Your task to perform on an android device: What's the weather today? Image 0: 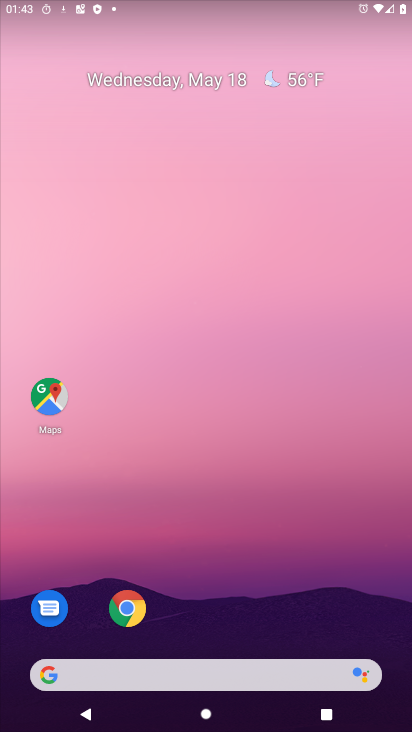
Step 0: press home button
Your task to perform on an android device: What's the weather today? Image 1: 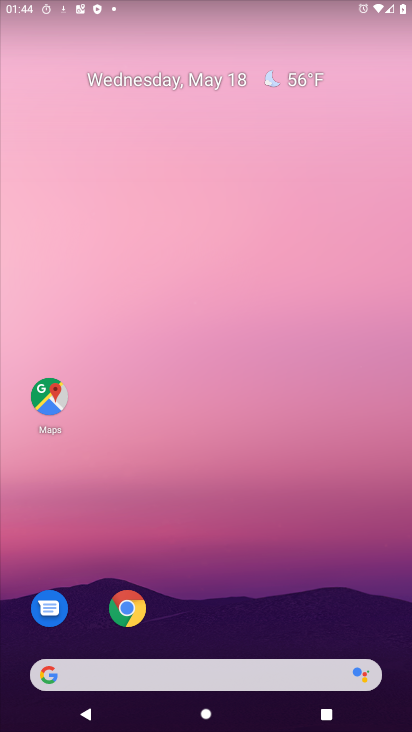
Step 1: drag from (278, 667) to (274, 167)
Your task to perform on an android device: What's the weather today? Image 2: 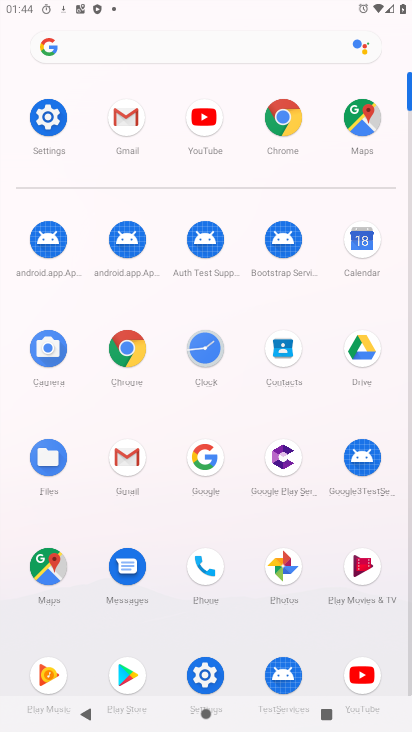
Step 2: click (149, 42)
Your task to perform on an android device: What's the weather today? Image 3: 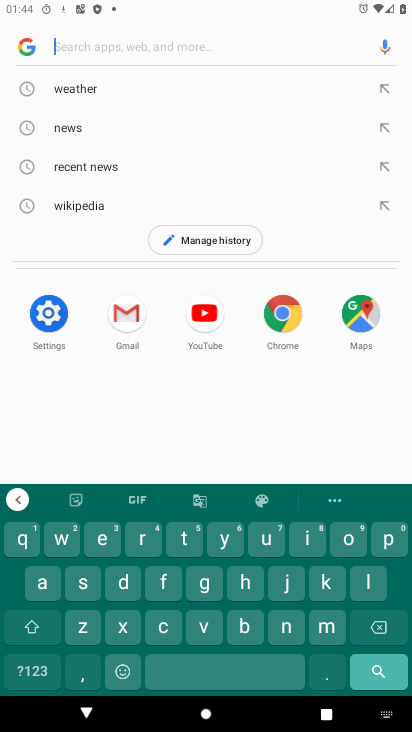
Step 3: click (116, 89)
Your task to perform on an android device: What's the weather today? Image 4: 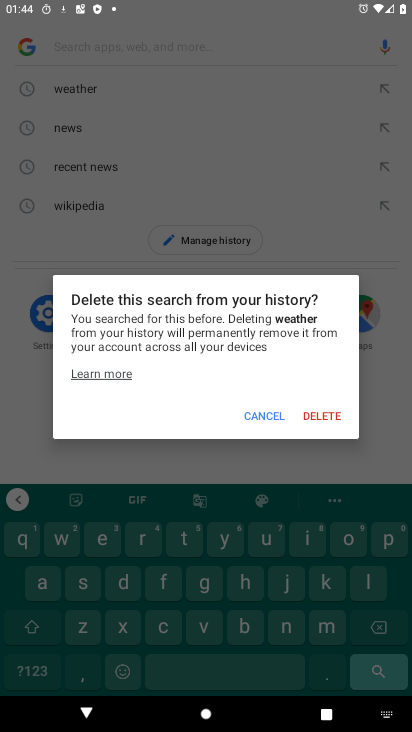
Step 4: click (259, 418)
Your task to perform on an android device: What's the weather today? Image 5: 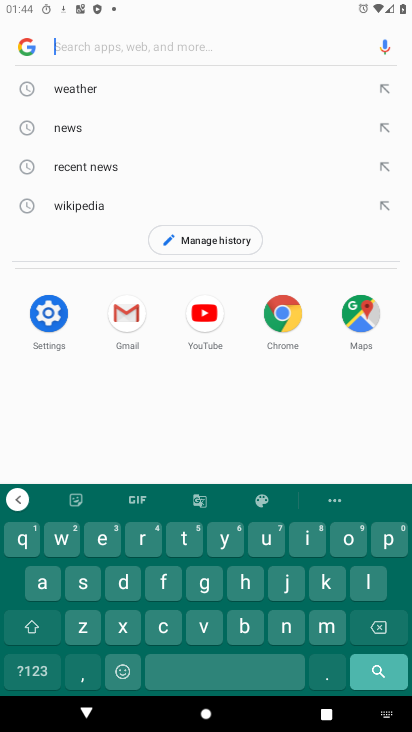
Step 5: click (77, 99)
Your task to perform on an android device: What's the weather today? Image 6: 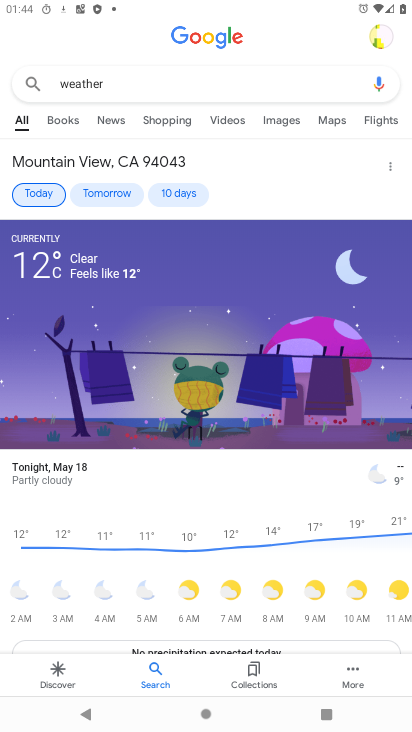
Step 6: task complete